Your task to perform on an android device: open app "Duolingo: language lessons" (install if not already installed) and go to login screen Image 0: 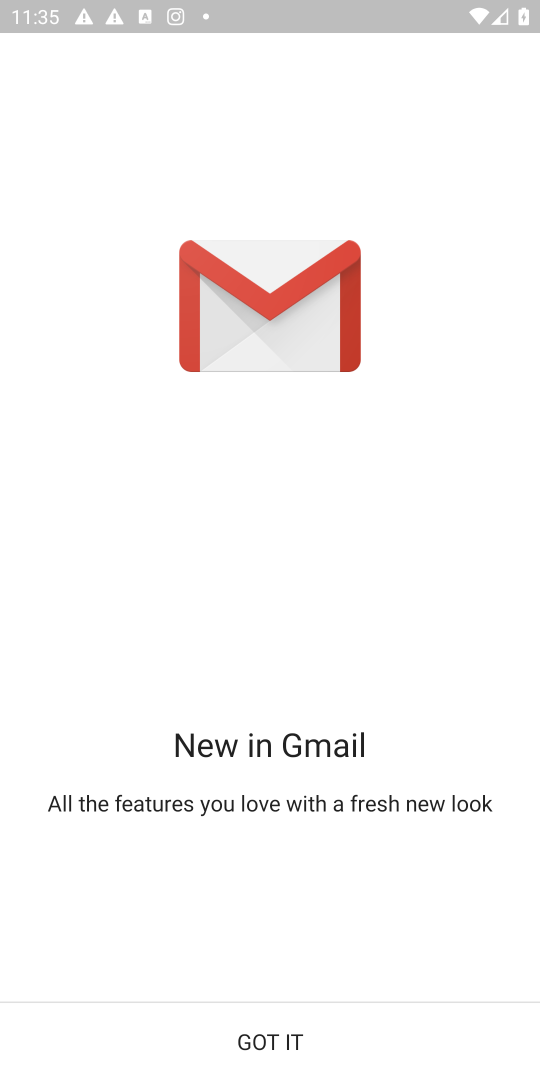
Step 0: press home button
Your task to perform on an android device: open app "Duolingo: language lessons" (install if not already installed) and go to login screen Image 1: 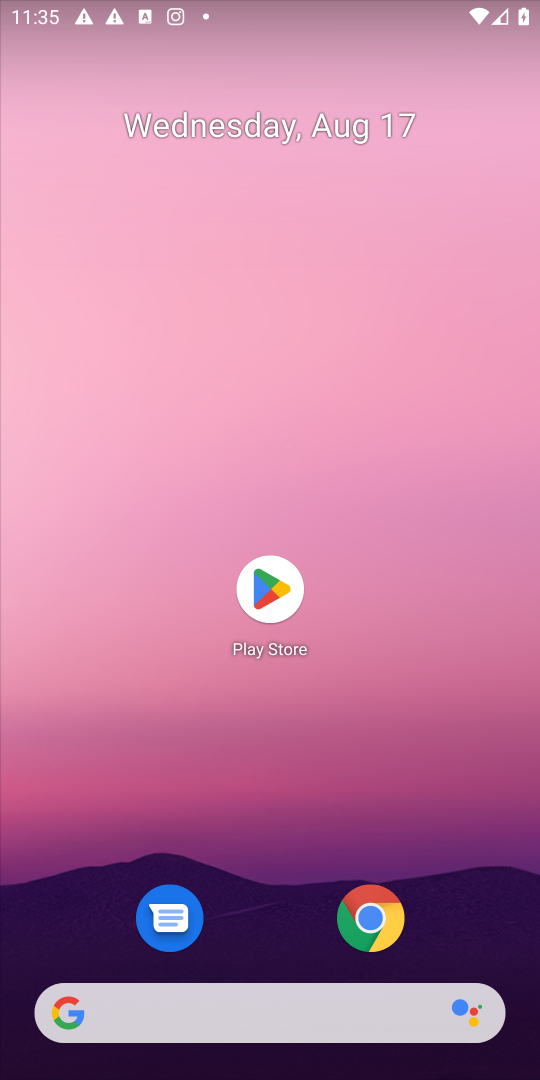
Step 1: click (273, 586)
Your task to perform on an android device: open app "Duolingo: language lessons" (install if not already installed) and go to login screen Image 2: 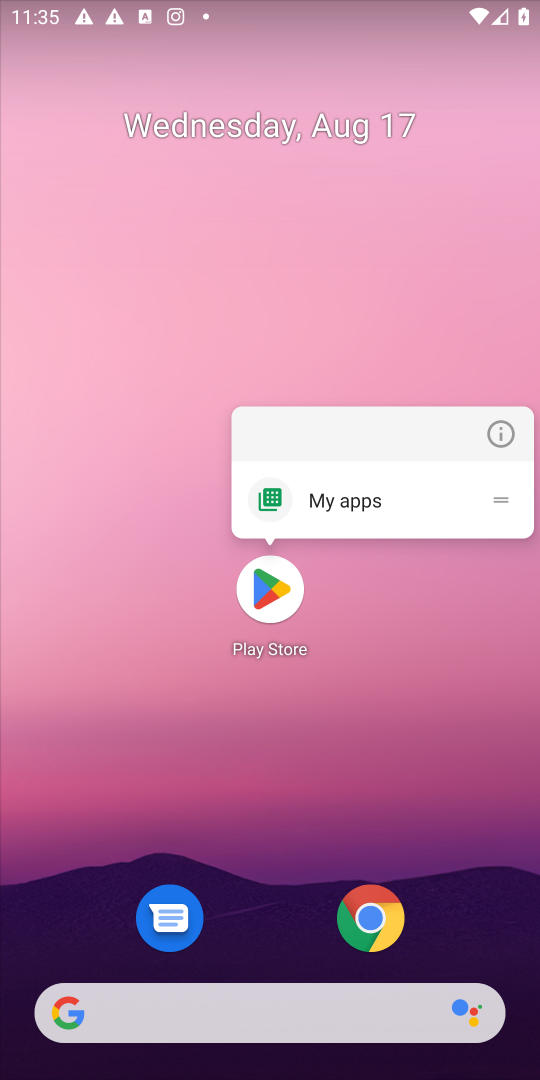
Step 2: click (273, 599)
Your task to perform on an android device: open app "Duolingo: language lessons" (install if not already installed) and go to login screen Image 3: 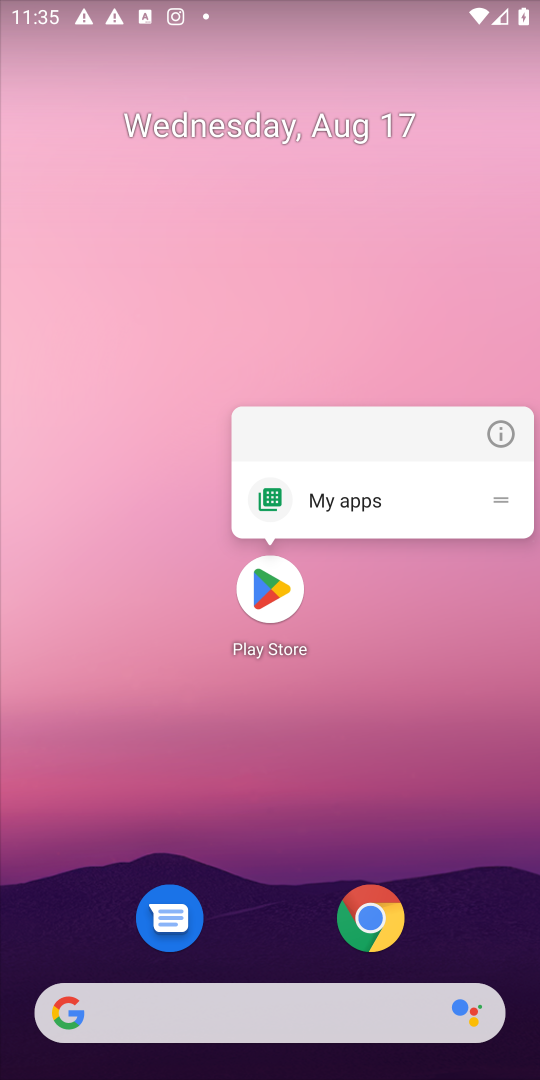
Step 3: click (273, 599)
Your task to perform on an android device: open app "Duolingo: language lessons" (install if not already installed) and go to login screen Image 4: 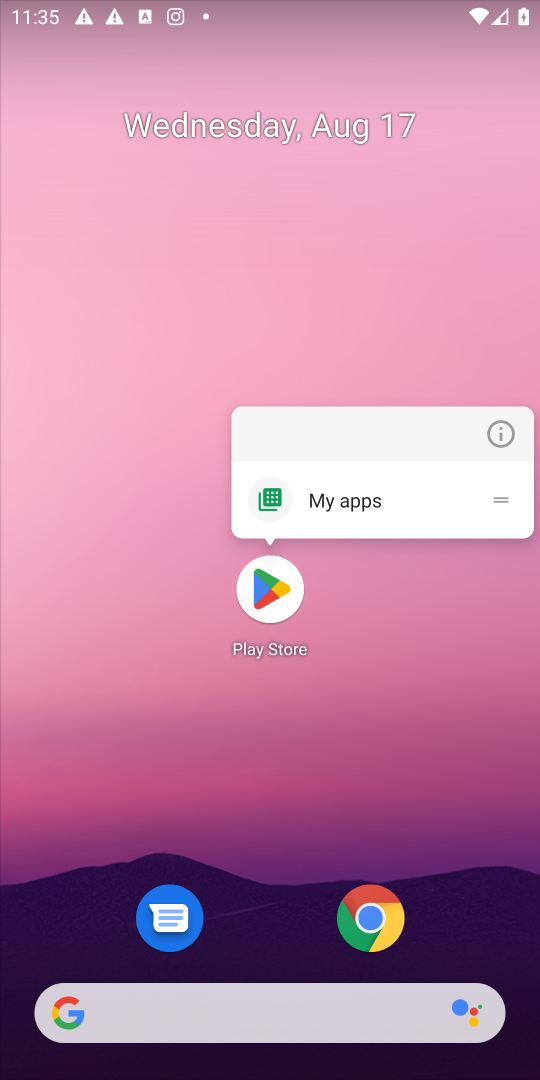
Step 4: click (274, 589)
Your task to perform on an android device: open app "Duolingo: language lessons" (install if not already installed) and go to login screen Image 5: 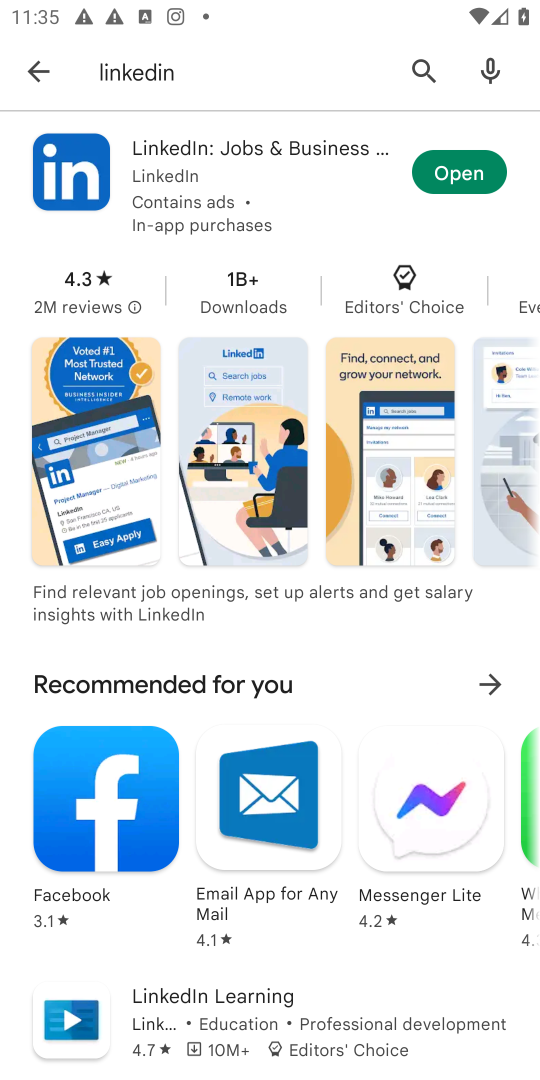
Step 5: click (424, 69)
Your task to perform on an android device: open app "Duolingo: language lessons" (install if not already installed) and go to login screen Image 6: 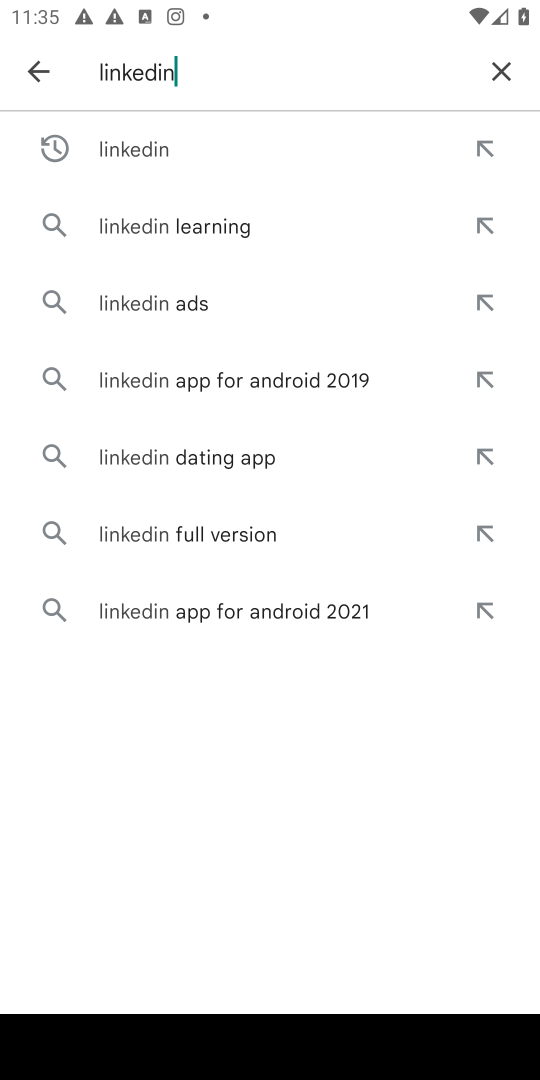
Step 6: click (503, 74)
Your task to perform on an android device: open app "Duolingo: language lessons" (install if not already installed) and go to login screen Image 7: 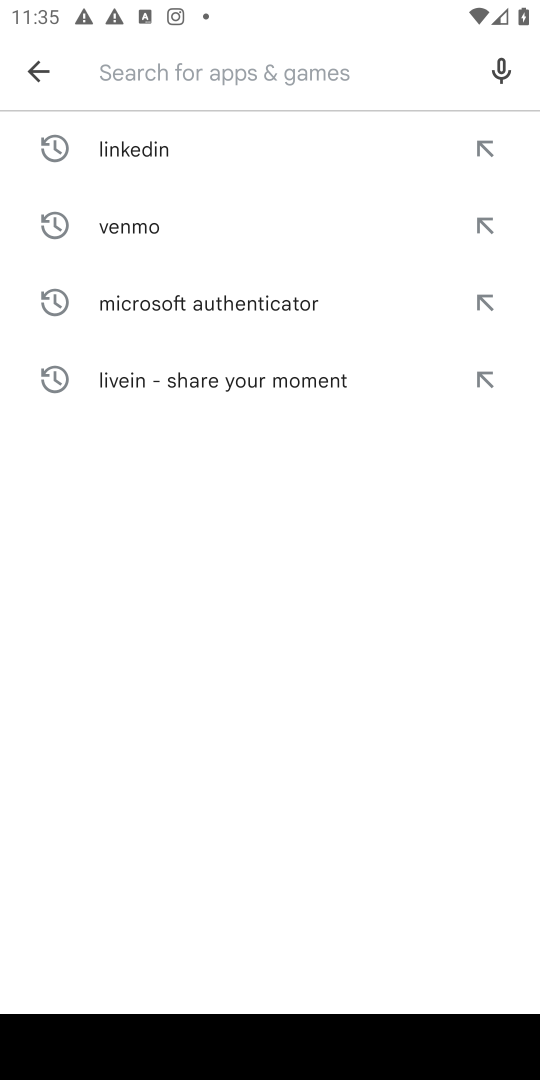
Step 7: type "Duolingo: language lessons"
Your task to perform on an android device: open app "Duolingo: language lessons" (install if not already installed) and go to login screen Image 8: 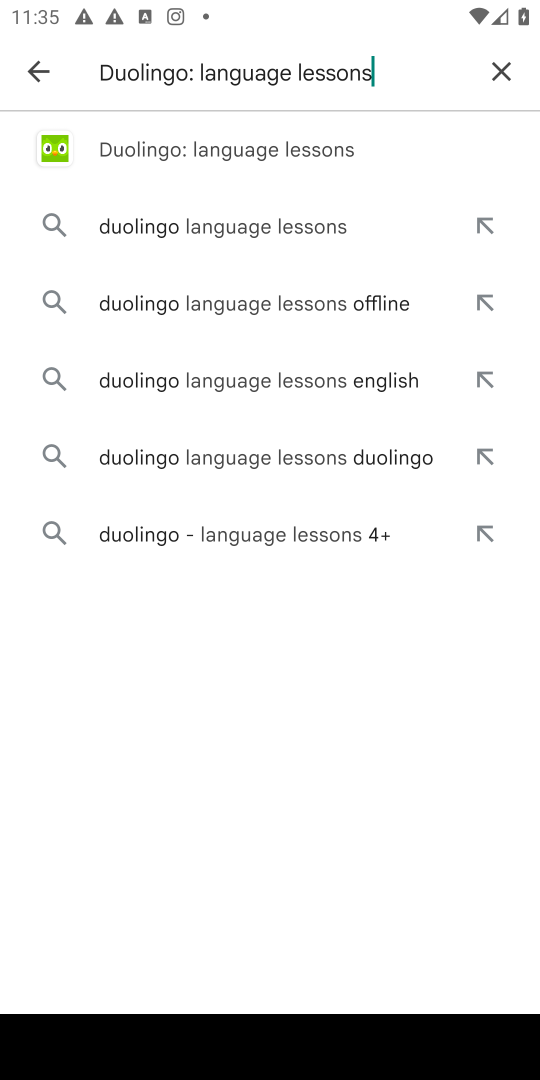
Step 8: click (230, 143)
Your task to perform on an android device: open app "Duolingo: language lessons" (install if not already installed) and go to login screen Image 9: 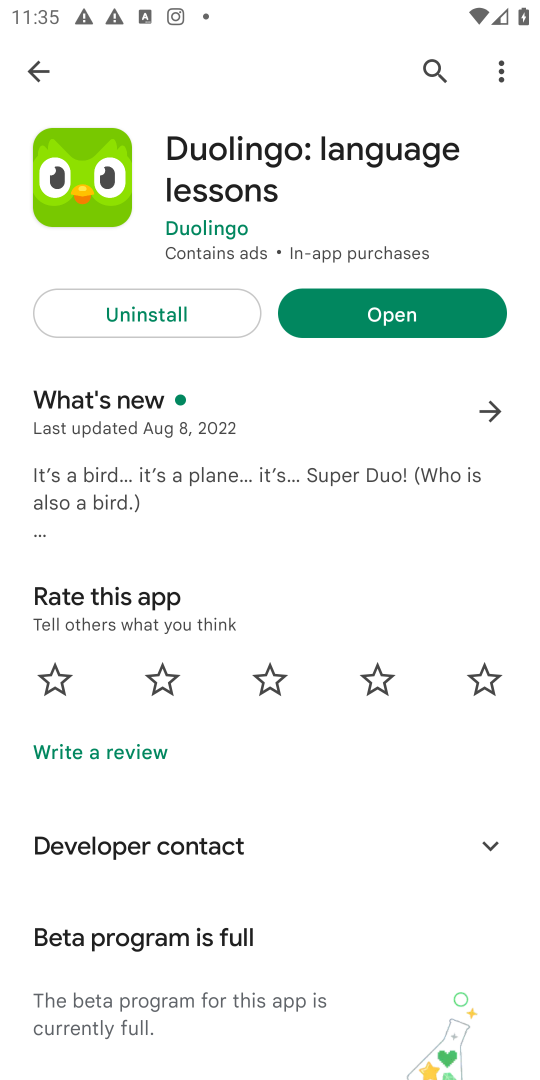
Step 9: click (376, 315)
Your task to perform on an android device: open app "Duolingo: language lessons" (install if not already installed) and go to login screen Image 10: 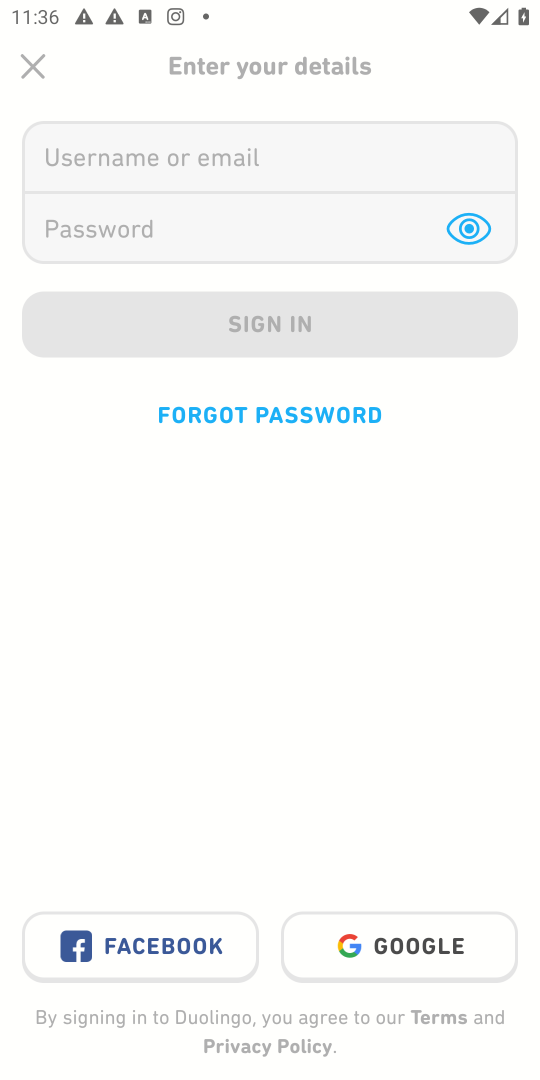
Step 10: task complete